Your task to perform on an android device: change text size in settings app Image 0: 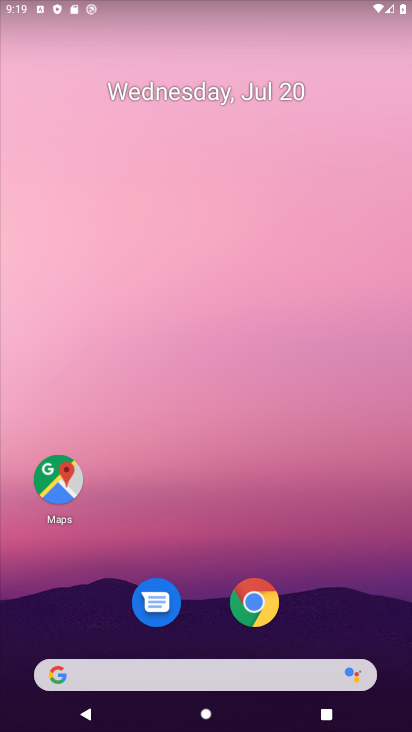
Step 0: drag from (190, 475) to (236, 114)
Your task to perform on an android device: change text size in settings app Image 1: 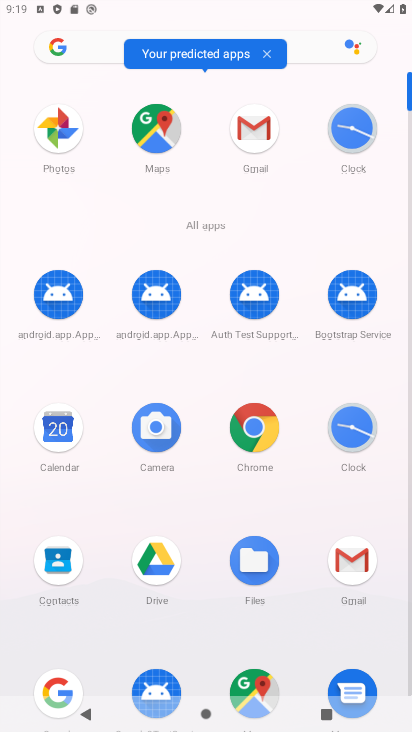
Step 1: drag from (212, 267) to (189, 7)
Your task to perform on an android device: change text size in settings app Image 2: 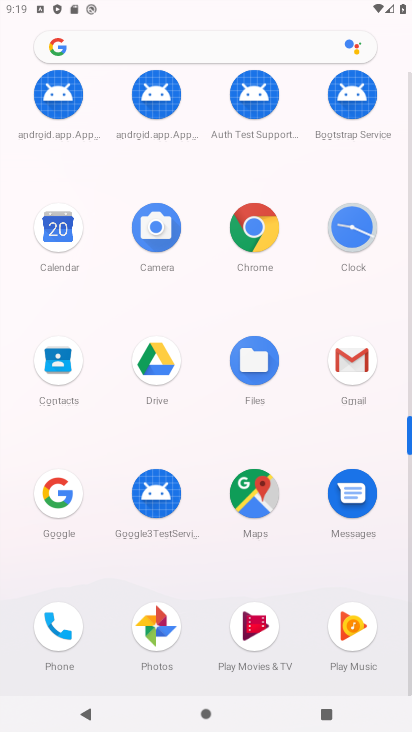
Step 2: drag from (198, 181) to (200, 4)
Your task to perform on an android device: change text size in settings app Image 3: 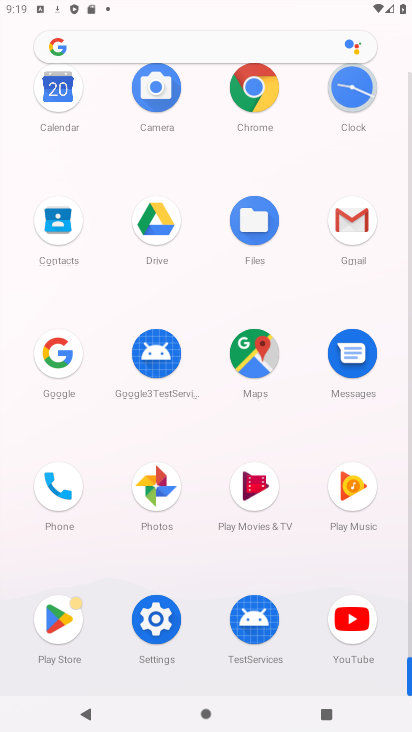
Step 3: click (165, 628)
Your task to perform on an android device: change text size in settings app Image 4: 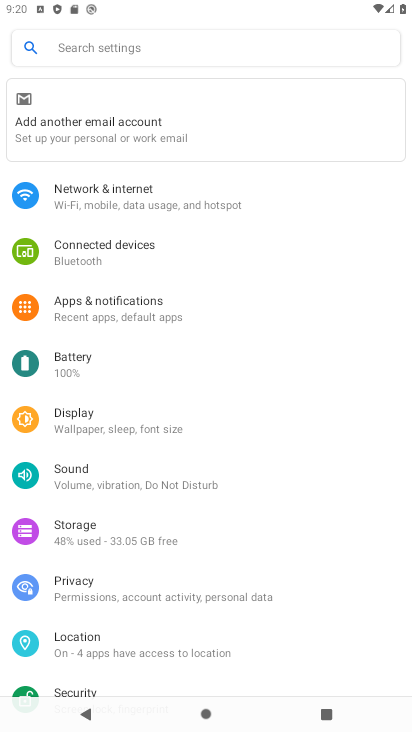
Step 4: click (149, 420)
Your task to perform on an android device: change text size in settings app Image 5: 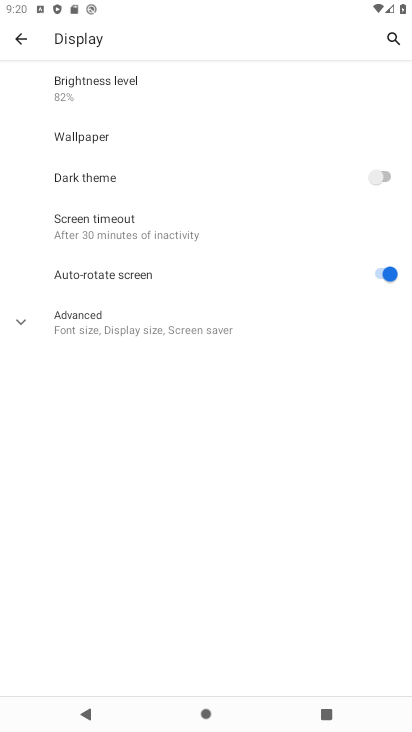
Step 5: click (107, 326)
Your task to perform on an android device: change text size in settings app Image 6: 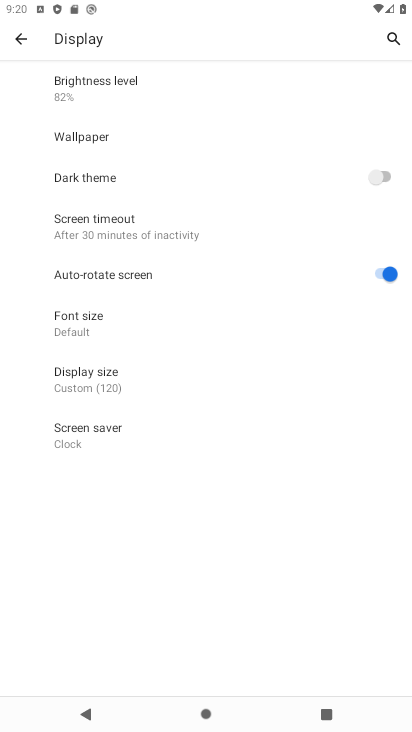
Step 6: click (107, 326)
Your task to perform on an android device: change text size in settings app Image 7: 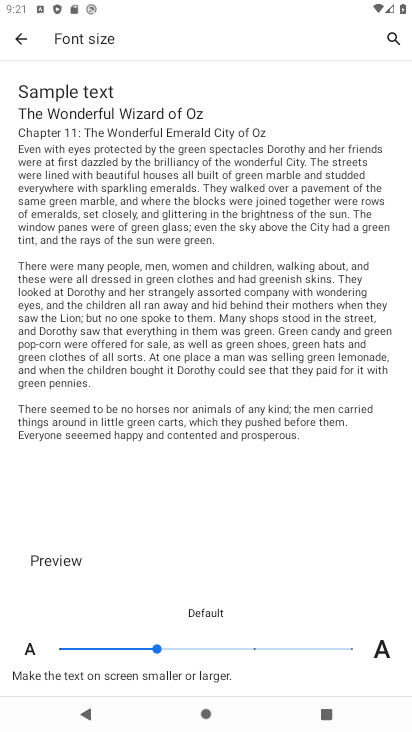
Step 7: click (244, 646)
Your task to perform on an android device: change text size in settings app Image 8: 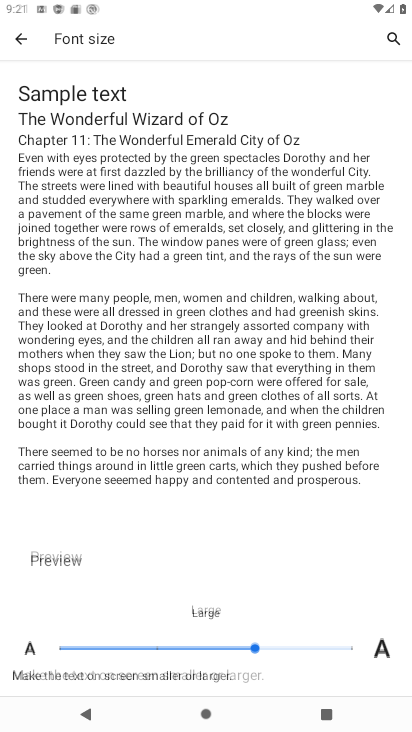
Step 8: task complete